Your task to perform on an android device: Play the last video I watched on Youtube Image 0: 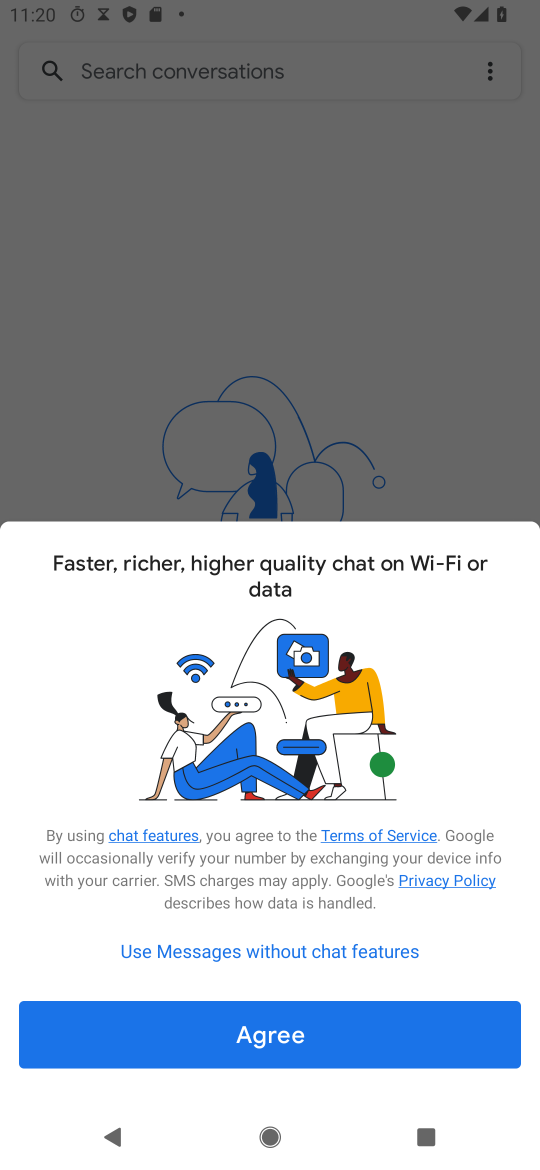
Step 0: press back button
Your task to perform on an android device: Play the last video I watched on Youtube Image 1: 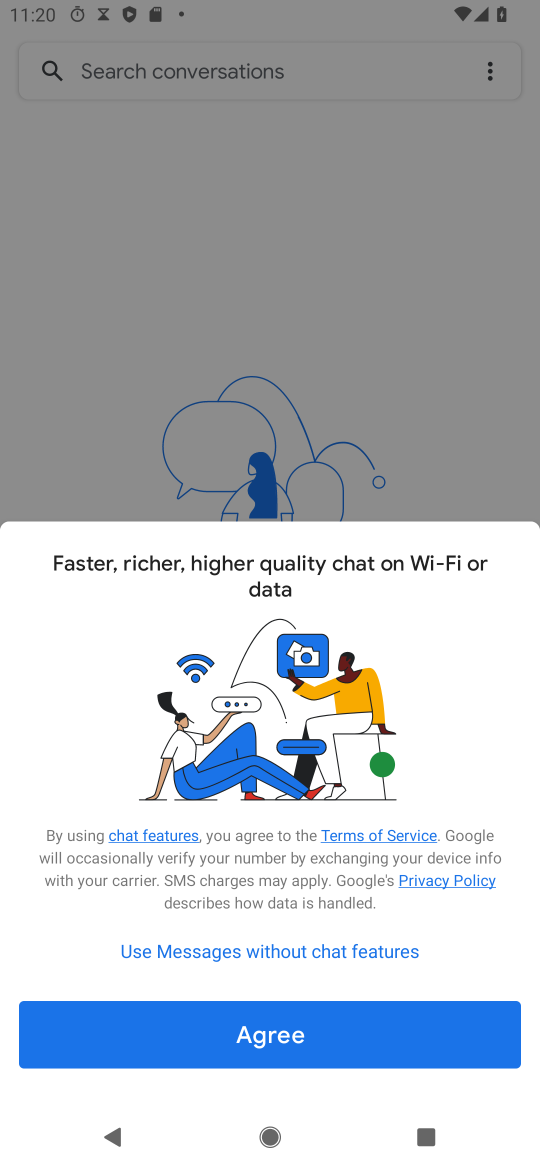
Step 1: press home button
Your task to perform on an android device: Play the last video I watched on Youtube Image 2: 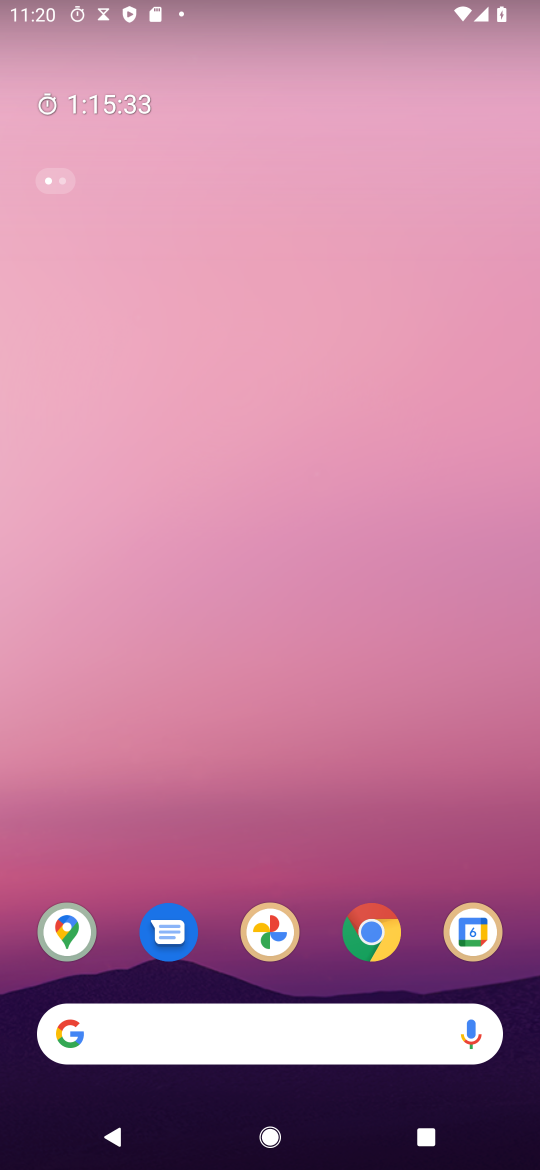
Step 2: drag from (399, 810) to (525, 614)
Your task to perform on an android device: Play the last video I watched on Youtube Image 3: 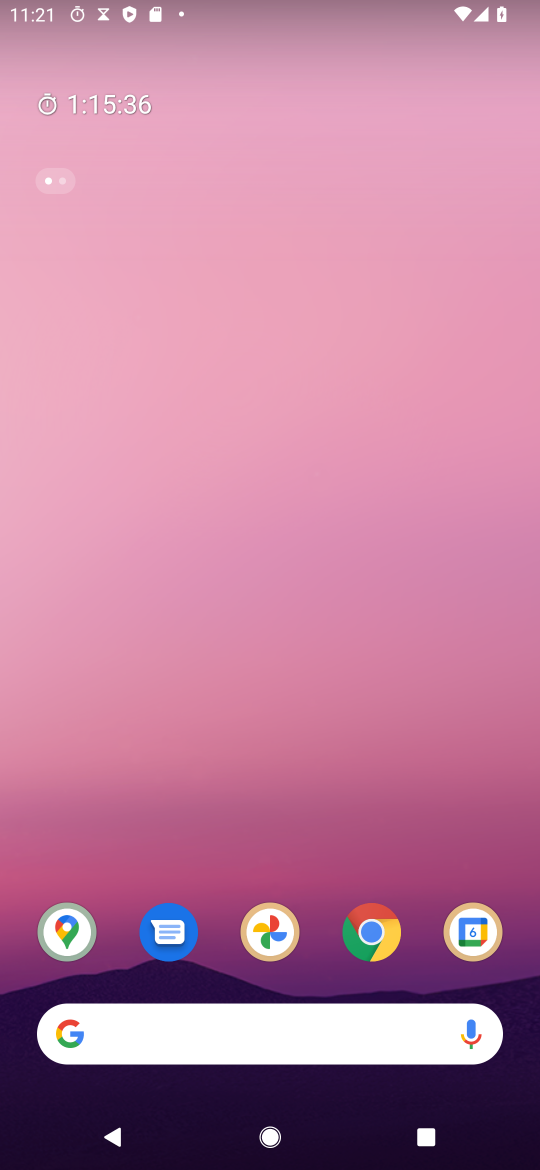
Step 3: click (142, 844)
Your task to perform on an android device: Play the last video I watched on Youtube Image 4: 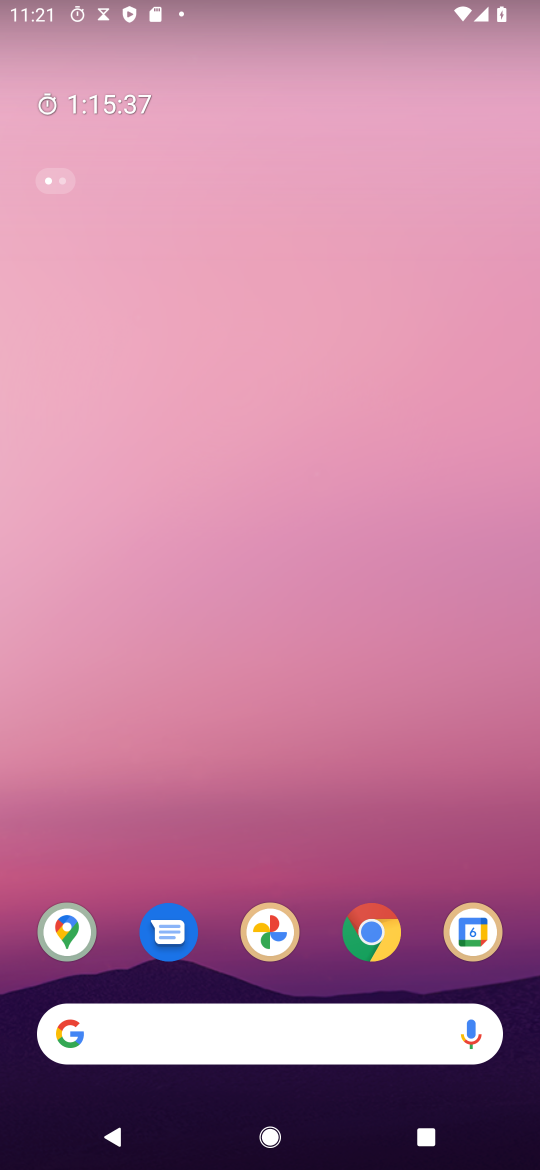
Step 4: drag from (142, 844) to (269, 74)
Your task to perform on an android device: Play the last video I watched on Youtube Image 5: 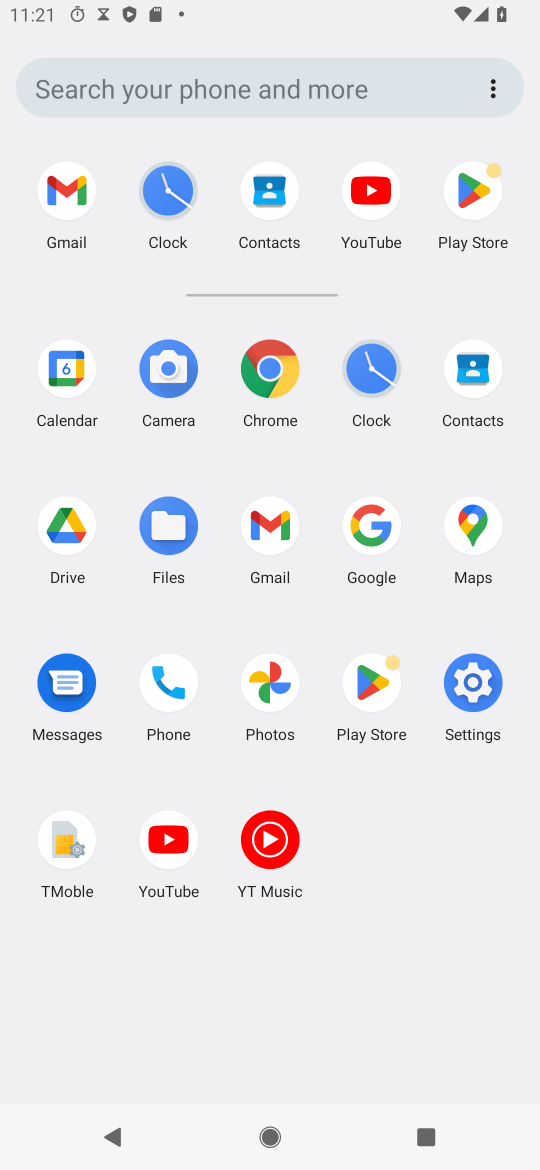
Step 5: click (163, 838)
Your task to perform on an android device: Play the last video I watched on Youtube Image 6: 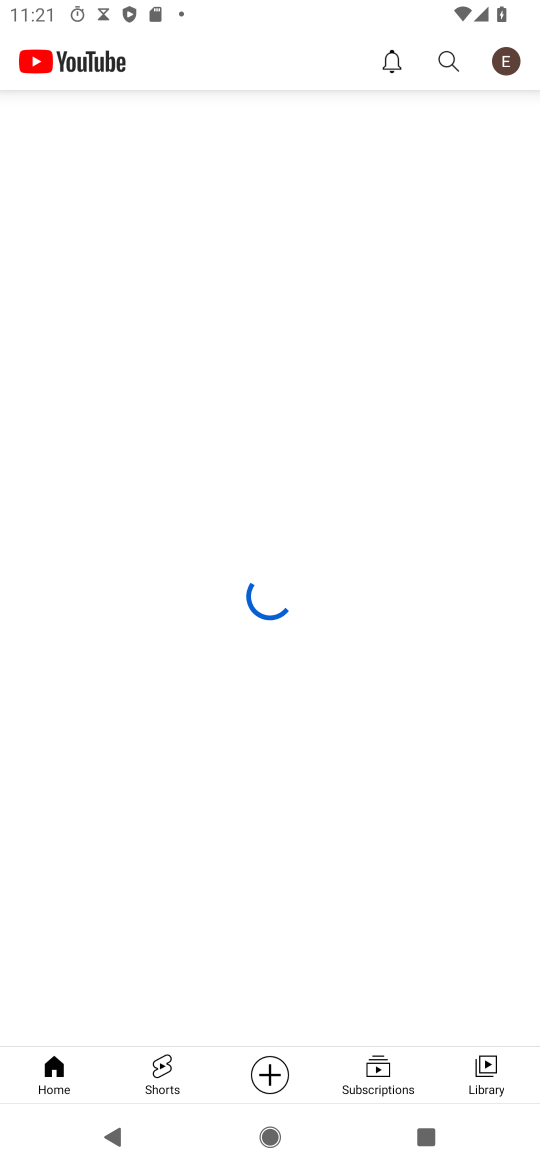
Step 6: click (493, 1077)
Your task to perform on an android device: Play the last video I watched on Youtube Image 7: 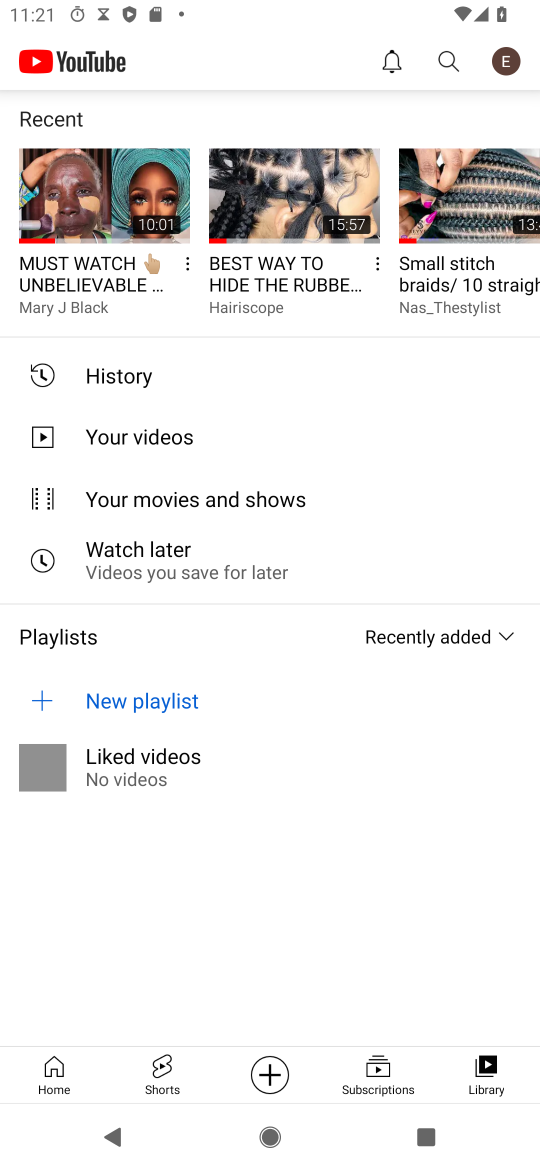
Step 7: click (120, 382)
Your task to perform on an android device: Play the last video I watched on Youtube Image 8: 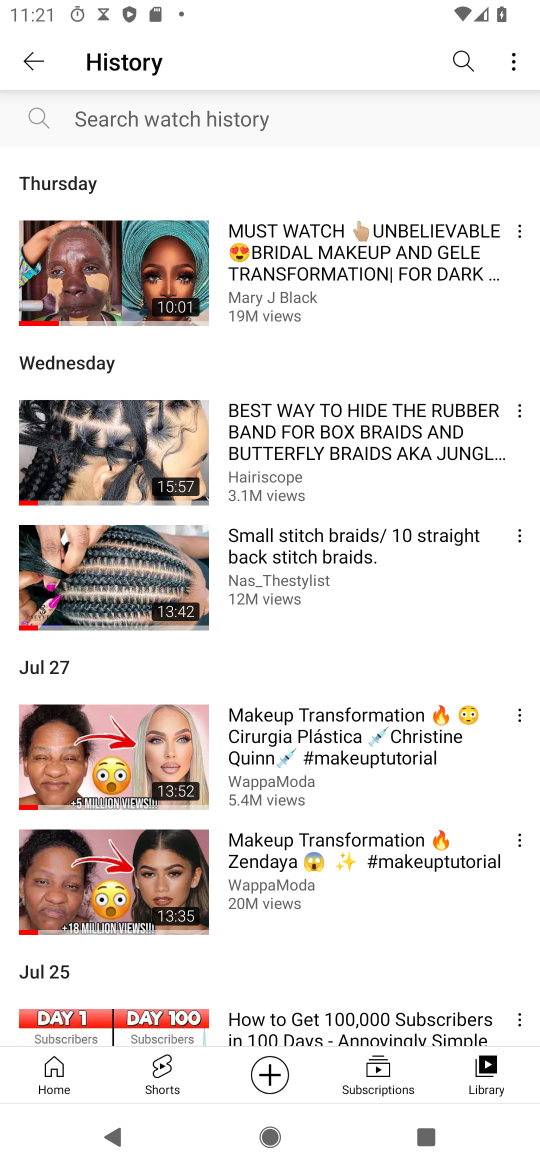
Step 8: click (140, 266)
Your task to perform on an android device: Play the last video I watched on Youtube Image 9: 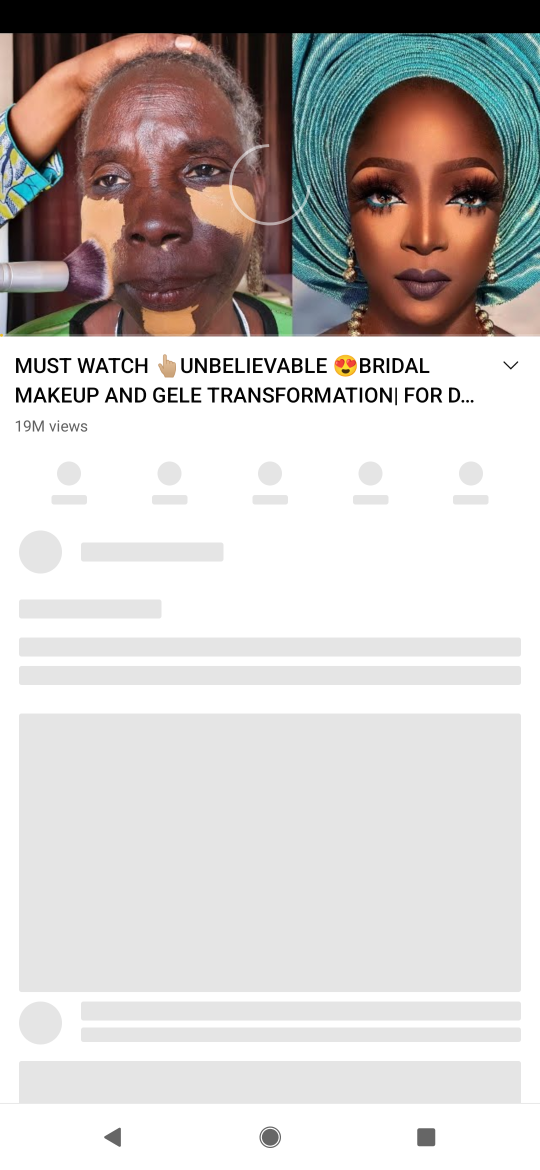
Step 9: task complete